Your task to perform on an android device: change the clock display to show seconds Image 0: 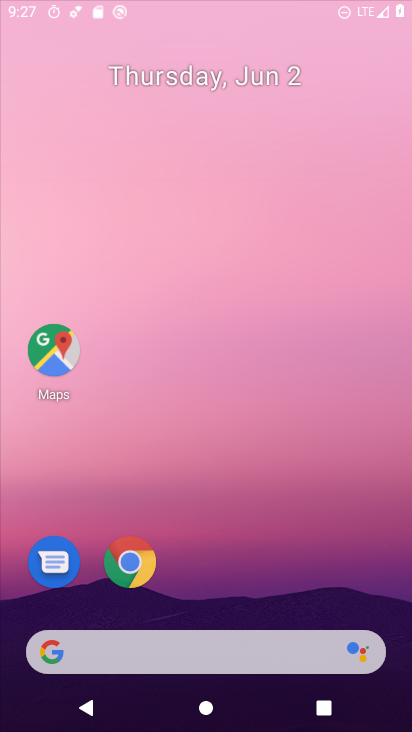
Step 0: drag from (357, 550) to (363, 138)
Your task to perform on an android device: change the clock display to show seconds Image 1: 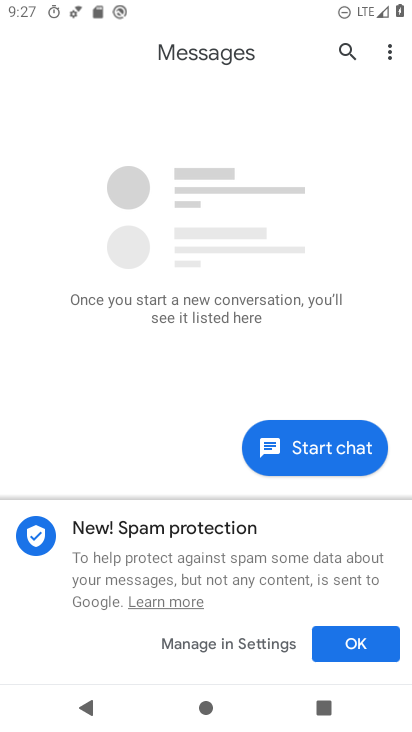
Step 1: press home button
Your task to perform on an android device: change the clock display to show seconds Image 2: 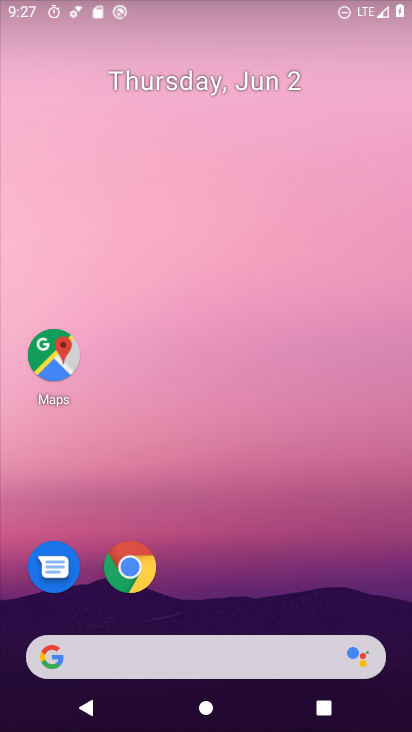
Step 2: drag from (344, 581) to (365, 67)
Your task to perform on an android device: change the clock display to show seconds Image 3: 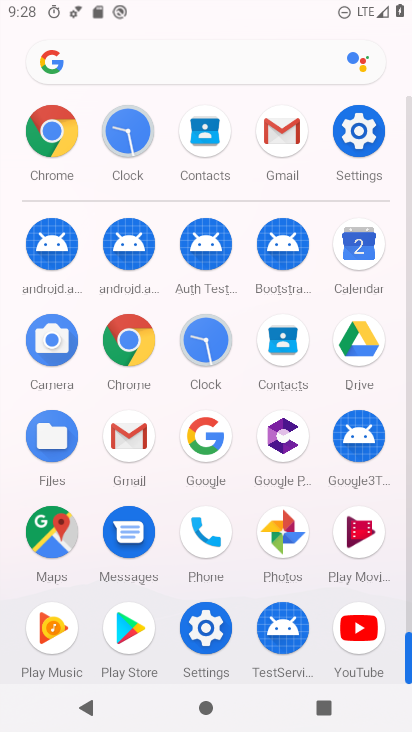
Step 3: click (221, 337)
Your task to perform on an android device: change the clock display to show seconds Image 4: 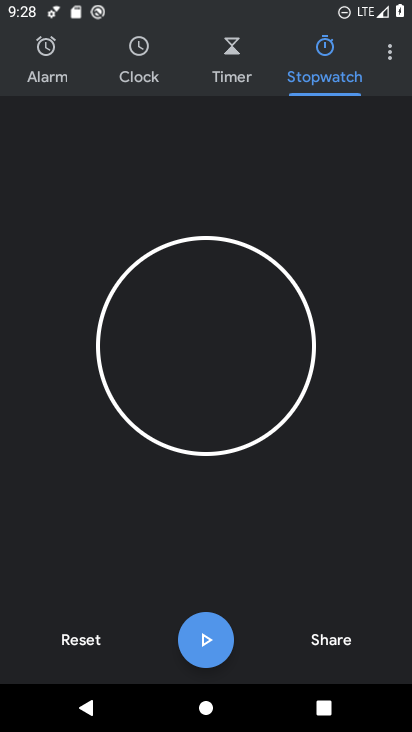
Step 4: click (398, 45)
Your task to perform on an android device: change the clock display to show seconds Image 5: 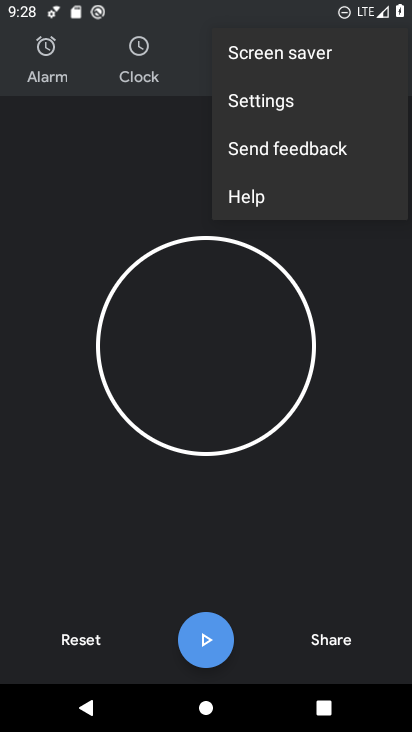
Step 5: click (288, 107)
Your task to perform on an android device: change the clock display to show seconds Image 6: 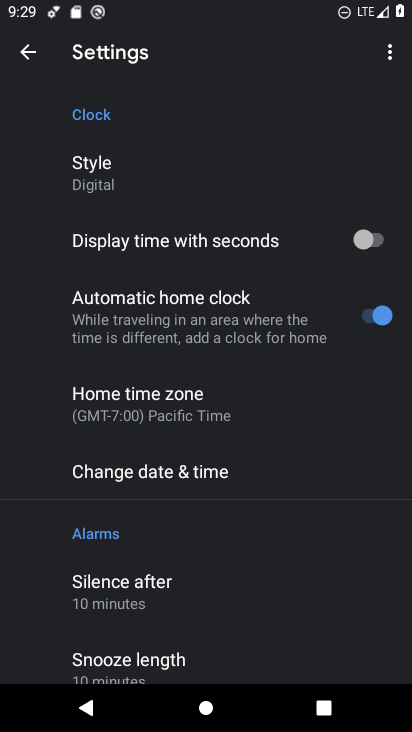
Step 6: click (385, 246)
Your task to perform on an android device: change the clock display to show seconds Image 7: 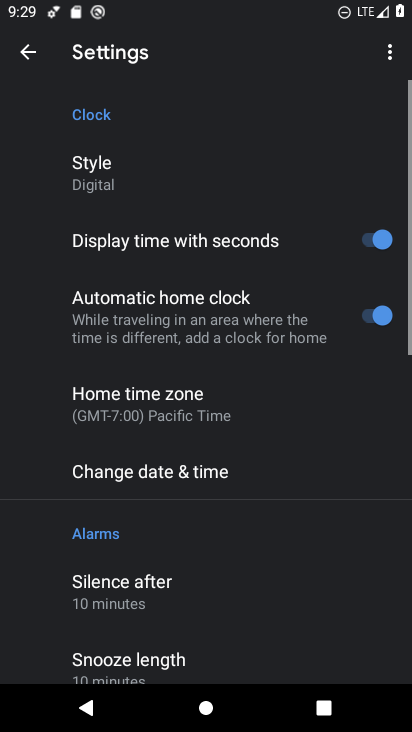
Step 7: task complete